Your task to perform on an android device: Open Google Chrome Image 0: 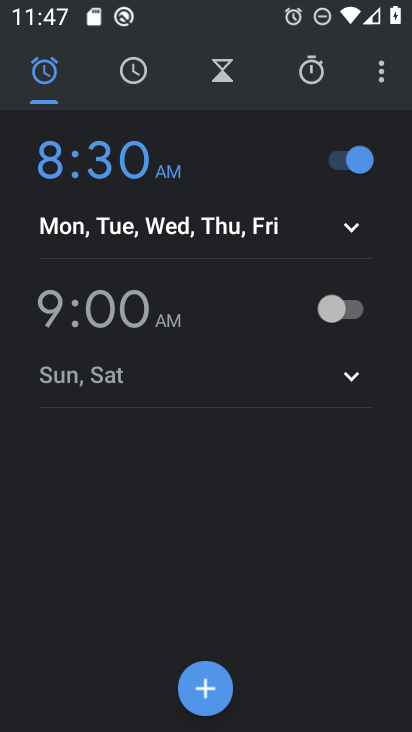
Step 0: drag from (351, 592) to (214, 195)
Your task to perform on an android device: Open Google Chrome Image 1: 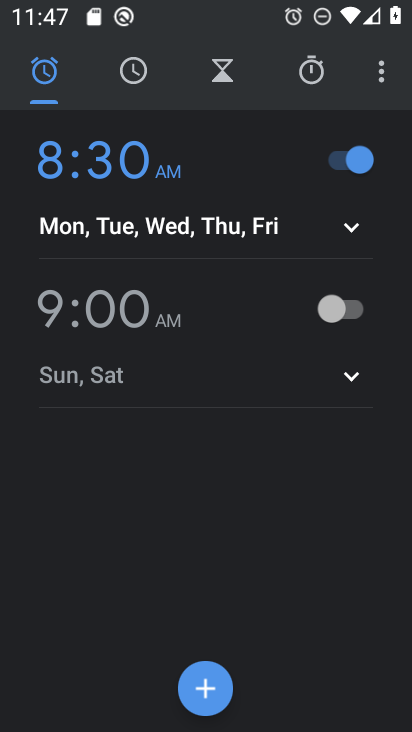
Step 1: press home button
Your task to perform on an android device: Open Google Chrome Image 2: 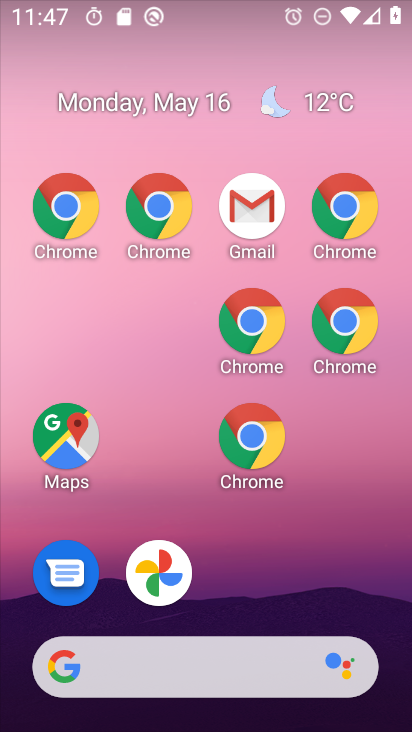
Step 2: drag from (320, 642) to (244, 164)
Your task to perform on an android device: Open Google Chrome Image 3: 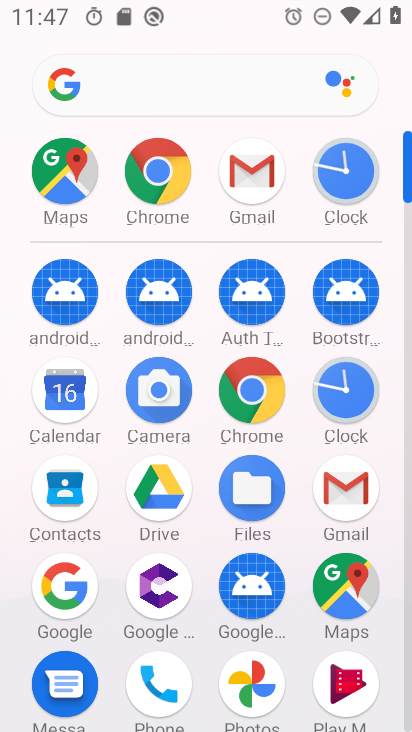
Step 3: click (160, 179)
Your task to perform on an android device: Open Google Chrome Image 4: 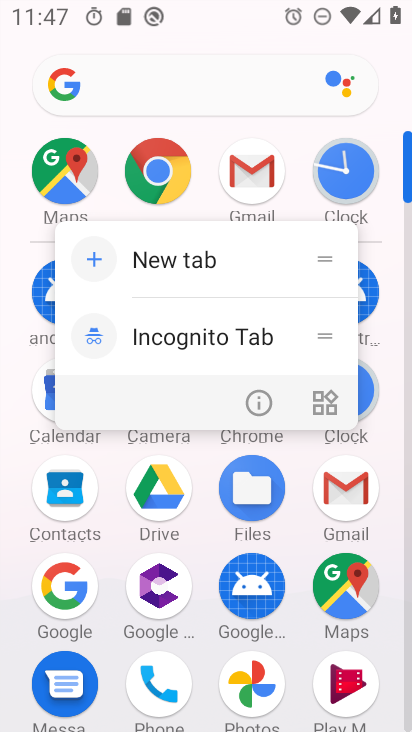
Step 4: click (147, 193)
Your task to perform on an android device: Open Google Chrome Image 5: 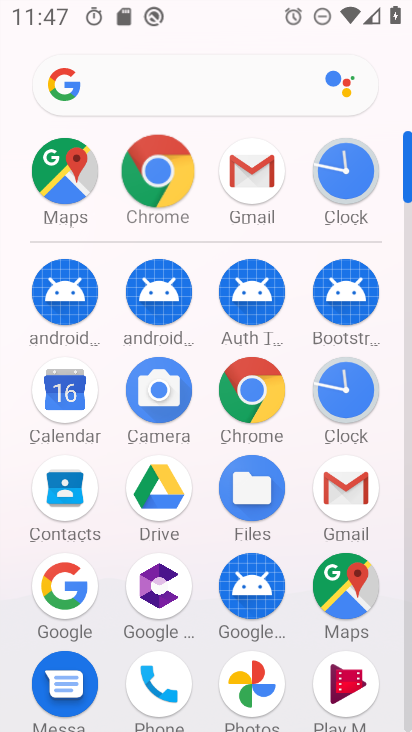
Step 5: click (148, 192)
Your task to perform on an android device: Open Google Chrome Image 6: 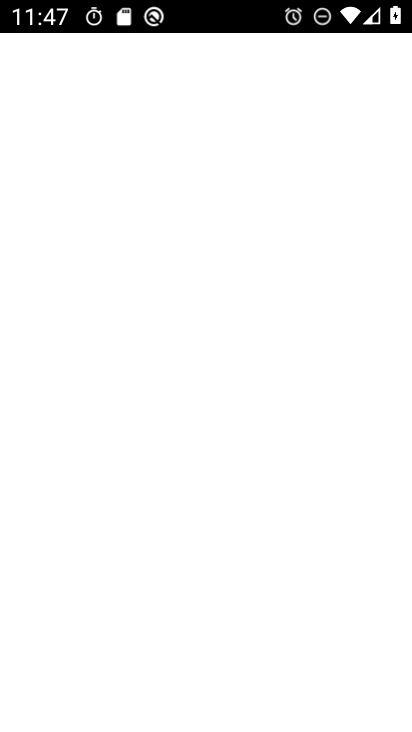
Step 6: click (152, 192)
Your task to perform on an android device: Open Google Chrome Image 7: 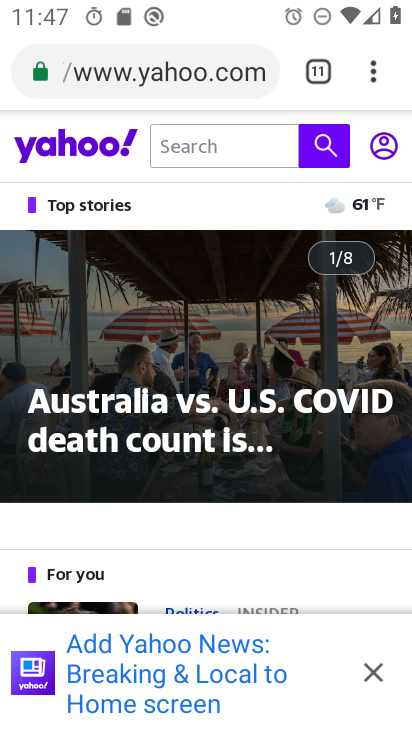
Step 7: task complete